Your task to perform on an android device: toggle data saver in the chrome app Image 0: 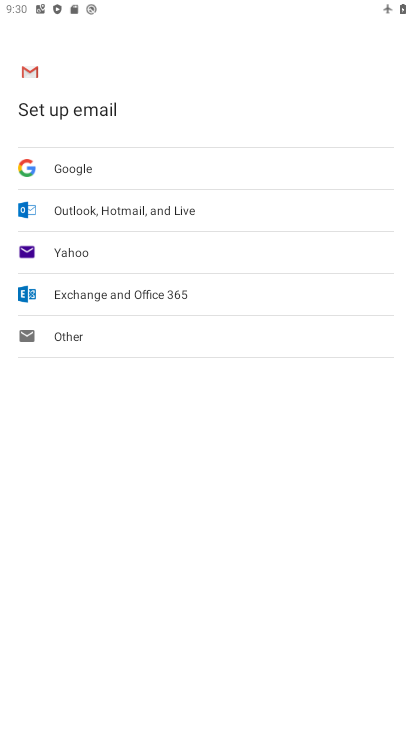
Step 0: press home button
Your task to perform on an android device: toggle data saver in the chrome app Image 1: 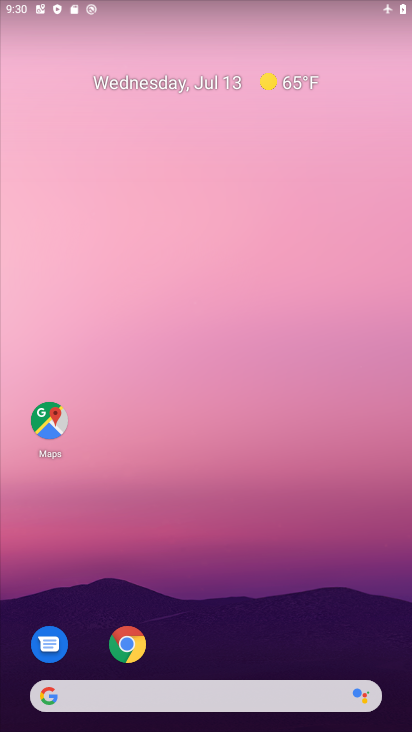
Step 1: drag from (256, 602) to (236, 70)
Your task to perform on an android device: toggle data saver in the chrome app Image 2: 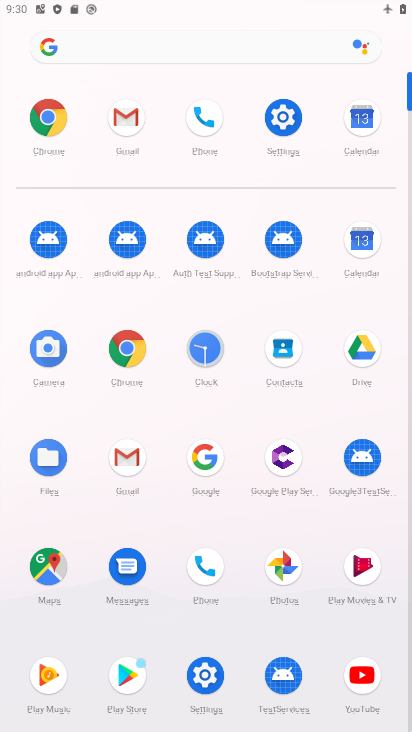
Step 2: click (52, 117)
Your task to perform on an android device: toggle data saver in the chrome app Image 3: 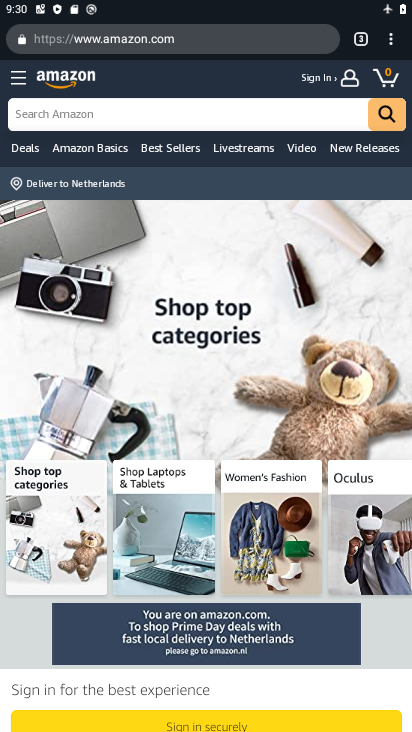
Step 3: drag from (396, 37) to (260, 436)
Your task to perform on an android device: toggle data saver in the chrome app Image 4: 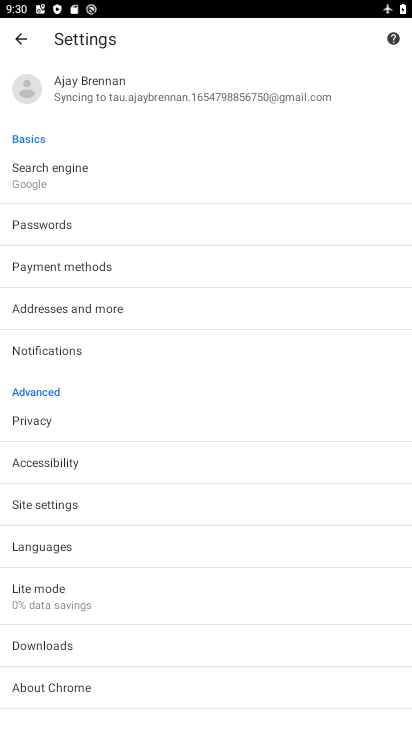
Step 4: click (52, 592)
Your task to perform on an android device: toggle data saver in the chrome app Image 5: 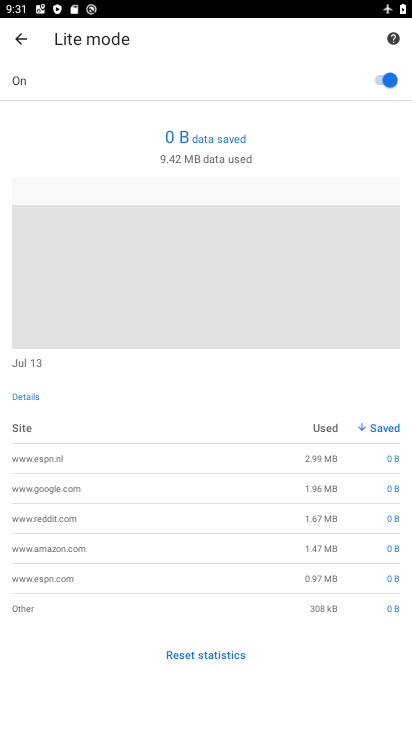
Step 5: click (393, 85)
Your task to perform on an android device: toggle data saver in the chrome app Image 6: 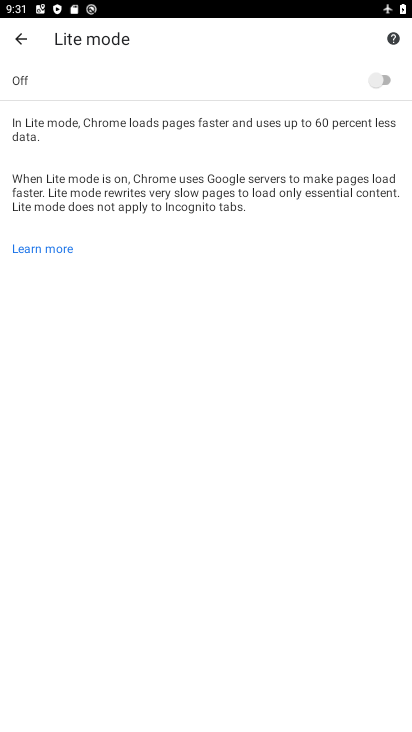
Step 6: task complete